Your task to perform on an android device: Open the web browser Image 0: 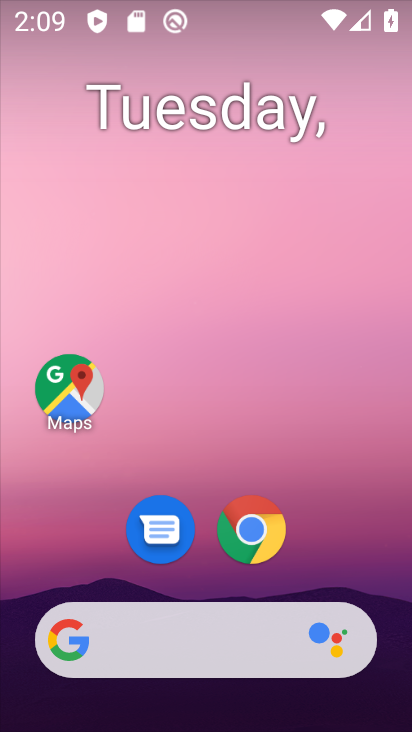
Step 0: click (250, 529)
Your task to perform on an android device: Open the web browser Image 1: 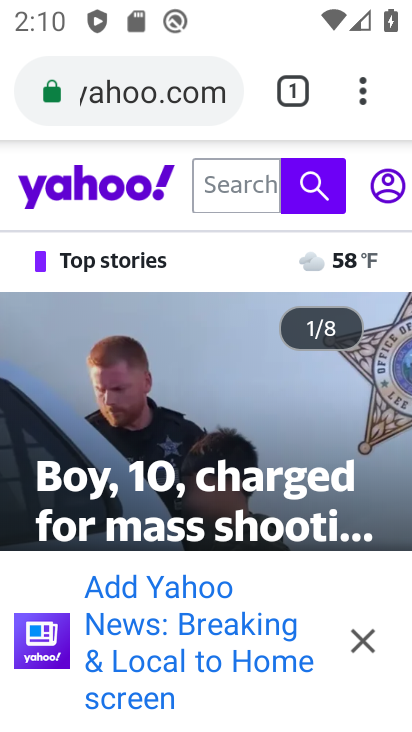
Step 1: task complete